Your task to perform on an android device: delete a single message in the gmail app Image 0: 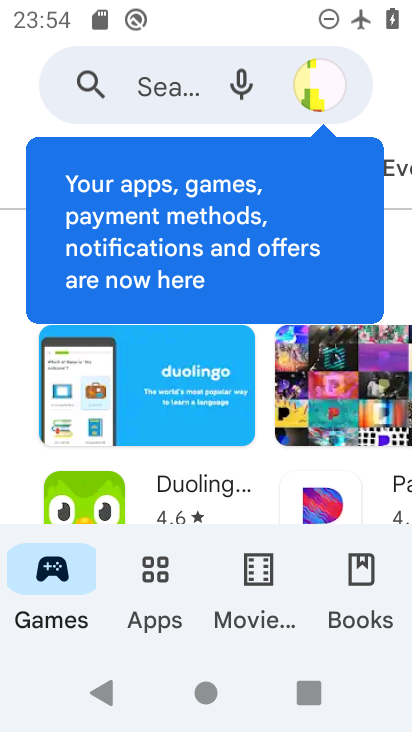
Step 0: press home button
Your task to perform on an android device: delete a single message in the gmail app Image 1: 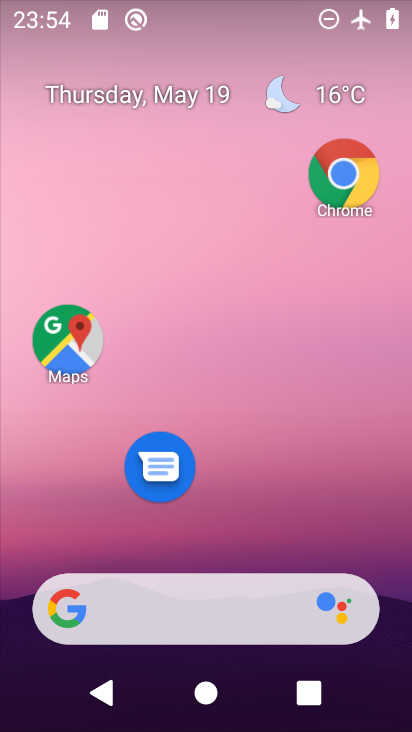
Step 1: drag from (244, 481) to (242, 207)
Your task to perform on an android device: delete a single message in the gmail app Image 2: 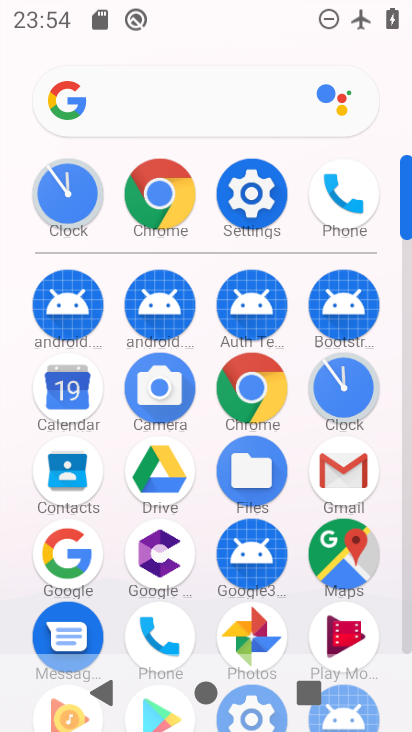
Step 2: click (330, 454)
Your task to perform on an android device: delete a single message in the gmail app Image 3: 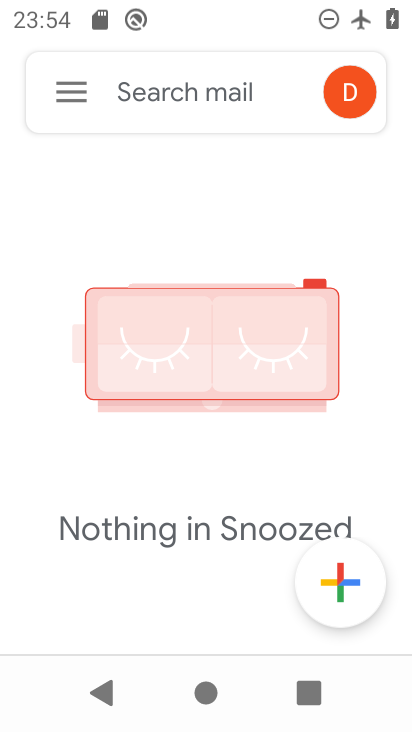
Step 3: click (66, 89)
Your task to perform on an android device: delete a single message in the gmail app Image 4: 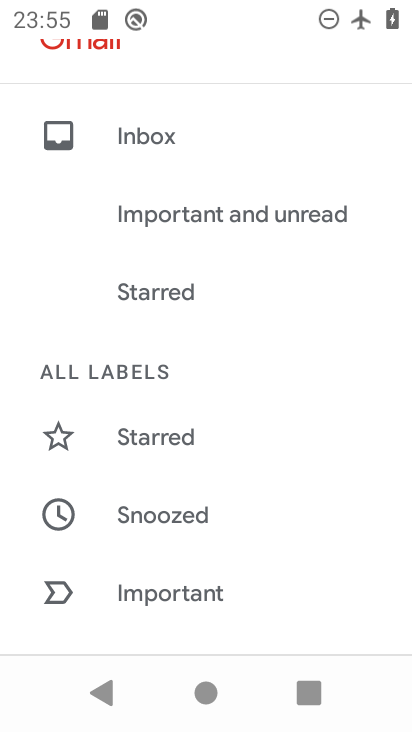
Step 4: drag from (176, 545) to (244, 221)
Your task to perform on an android device: delete a single message in the gmail app Image 5: 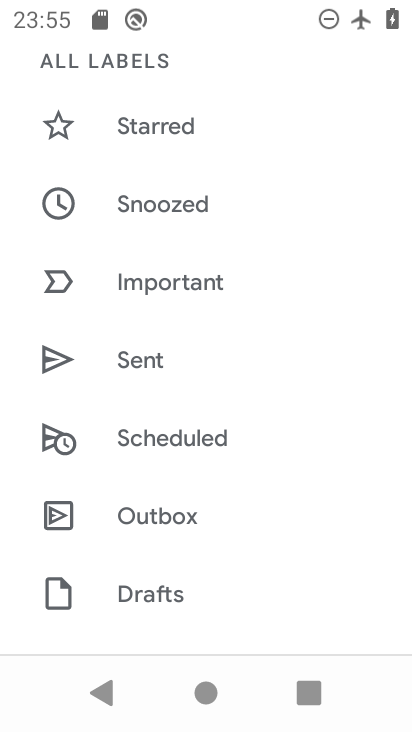
Step 5: drag from (182, 603) to (263, 161)
Your task to perform on an android device: delete a single message in the gmail app Image 6: 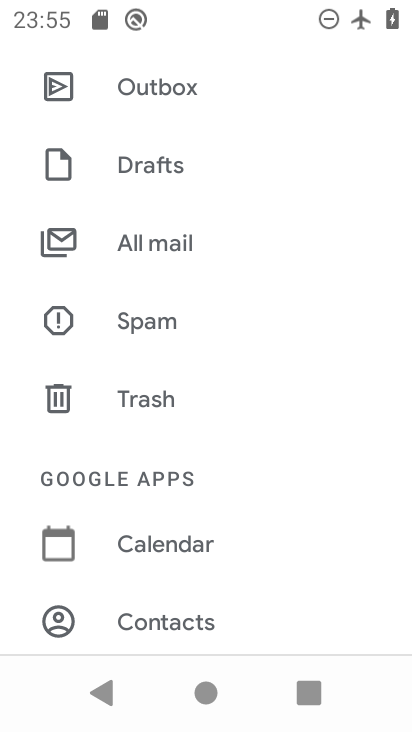
Step 6: click (146, 246)
Your task to perform on an android device: delete a single message in the gmail app Image 7: 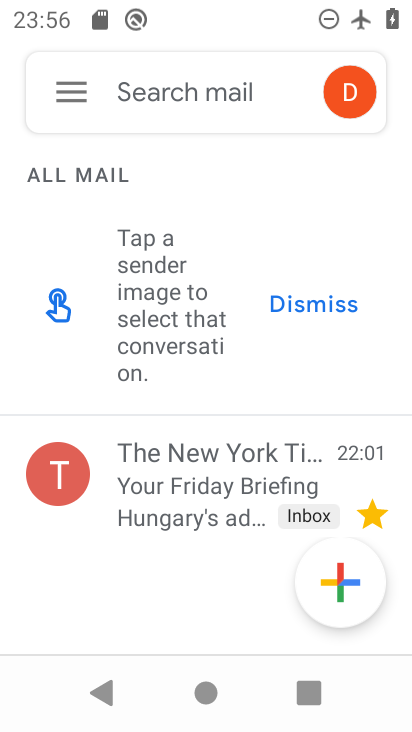
Step 7: click (46, 472)
Your task to perform on an android device: delete a single message in the gmail app Image 8: 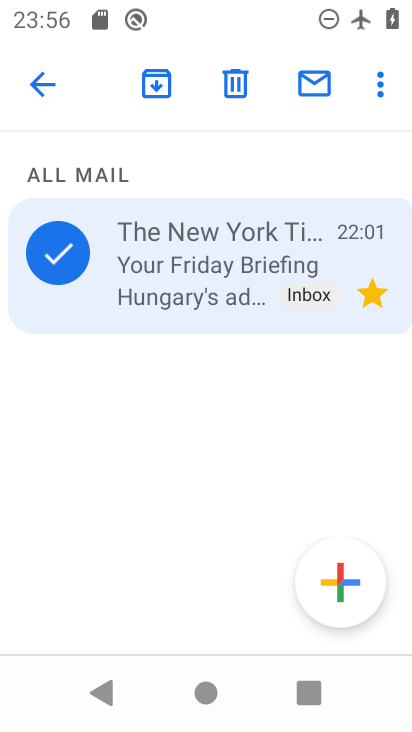
Step 8: click (242, 74)
Your task to perform on an android device: delete a single message in the gmail app Image 9: 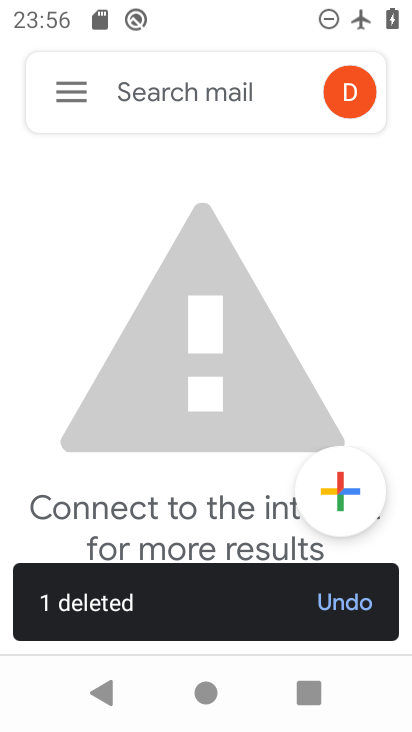
Step 9: task complete